Your task to perform on an android device: Check the news Image 0: 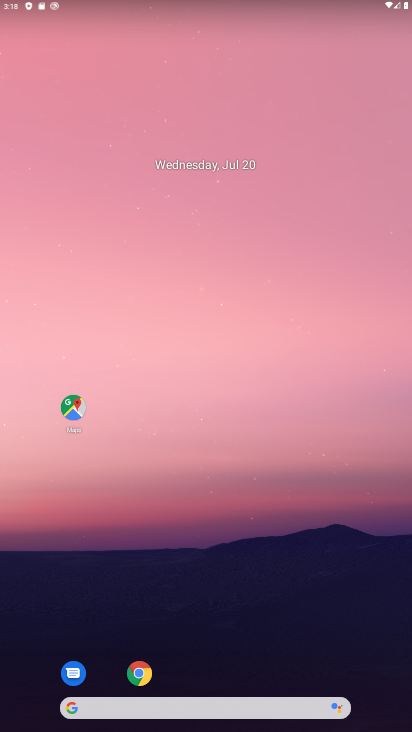
Step 0: drag from (213, 653) to (176, 144)
Your task to perform on an android device: Check the news Image 1: 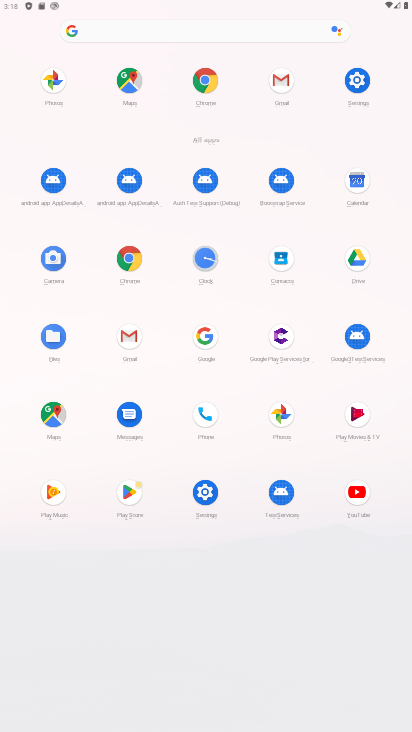
Step 1: click (133, 249)
Your task to perform on an android device: Check the news Image 2: 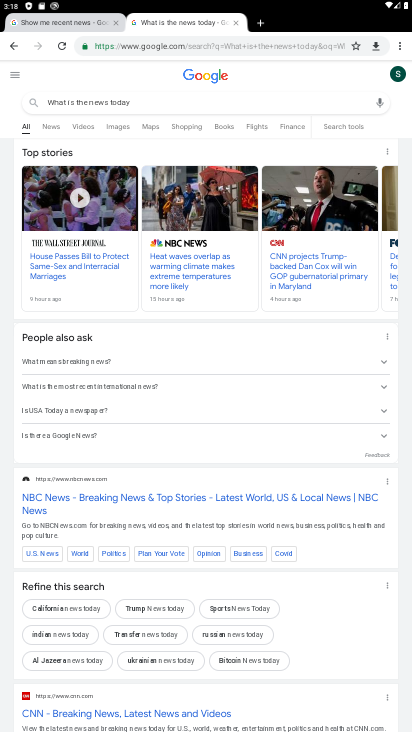
Step 2: click (264, 22)
Your task to perform on an android device: Check the news Image 3: 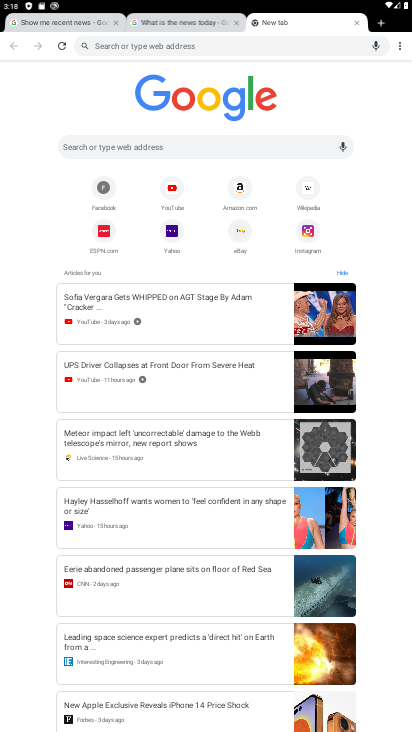
Step 3: click (147, 141)
Your task to perform on an android device: Check the news Image 4: 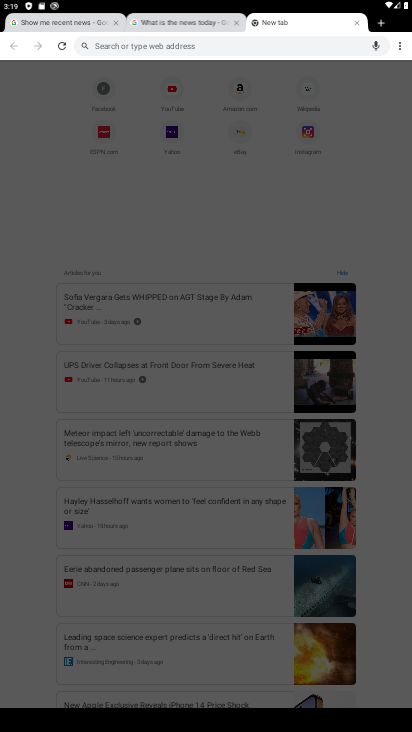
Step 4: type "Check the news "
Your task to perform on an android device: Check the news Image 5: 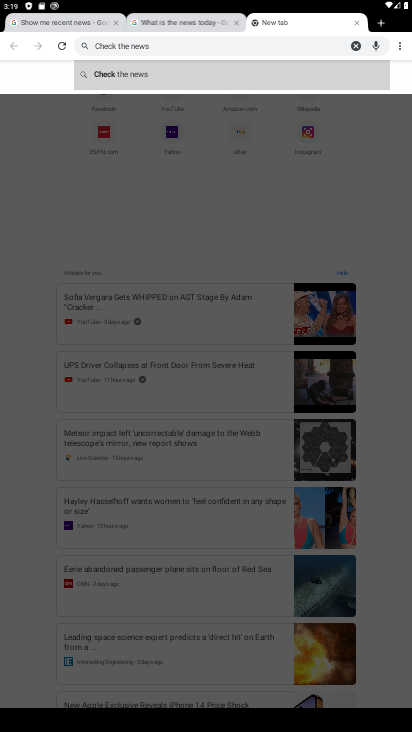
Step 5: click (151, 70)
Your task to perform on an android device: Check the news Image 6: 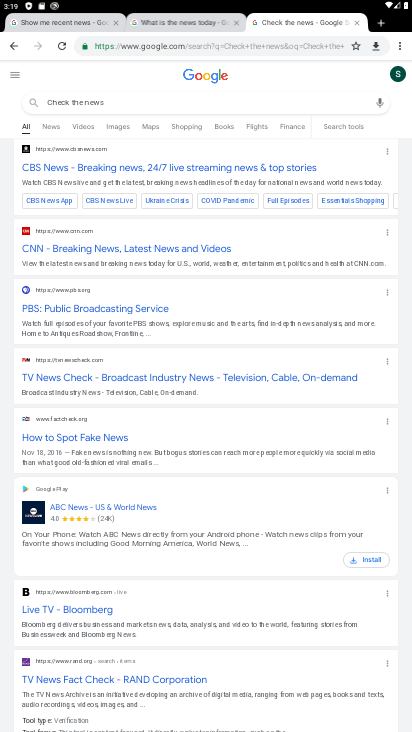
Step 6: task complete